Your task to perform on an android device: Show me popular games on the Play Store Image 0: 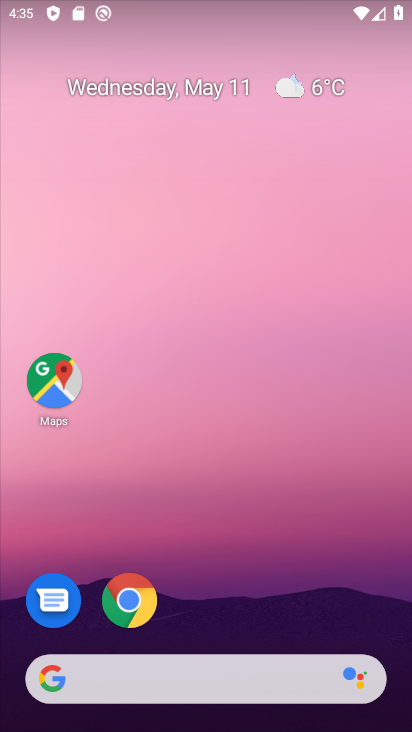
Step 0: drag from (254, 561) to (300, 53)
Your task to perform on an android device: Show me popular games on the Play Store Image 1: 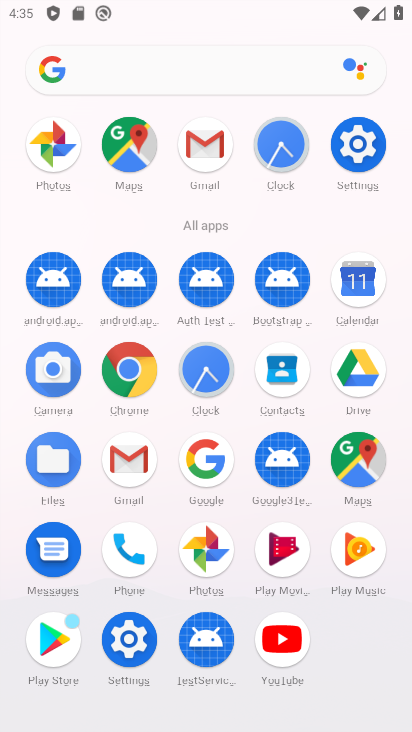
Step 1: click (67, 631)
Your task to perform on an android device: Show me popular games on the Play Store Image 2: 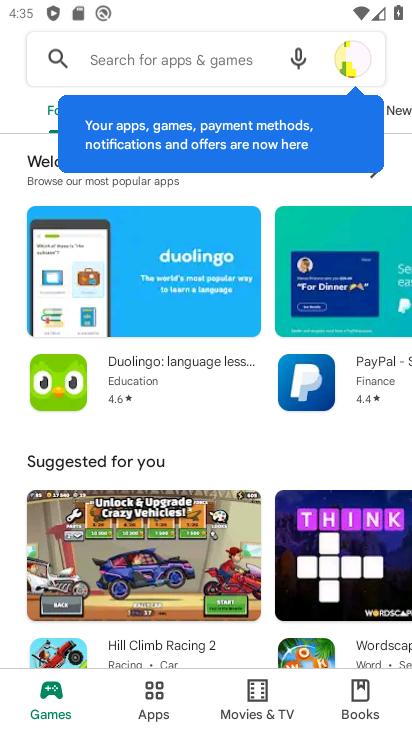
Step 2: task complete